Your task to perform on an android device: Go to battery settings Image 0: 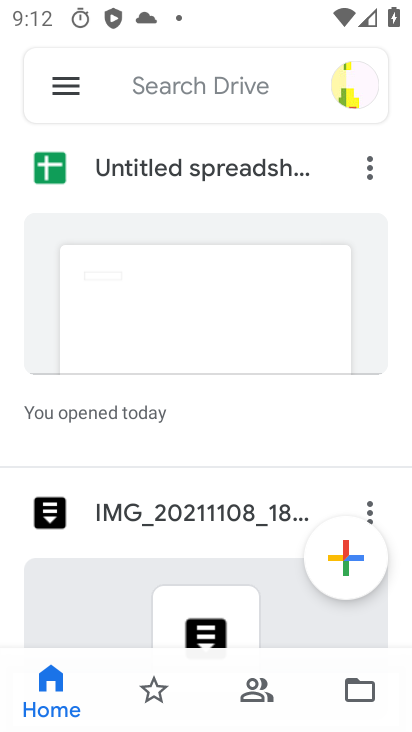
Step 0: press home button
Your task to perform on an android device: Go to battery settings Image 1: 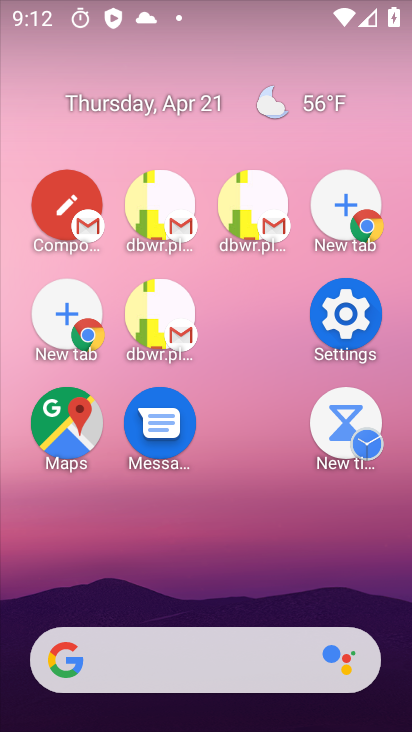
Step 1: drag from (296, 601) to (135, 69)
Your task to perform on an android device: Go to battery settings Image 2: 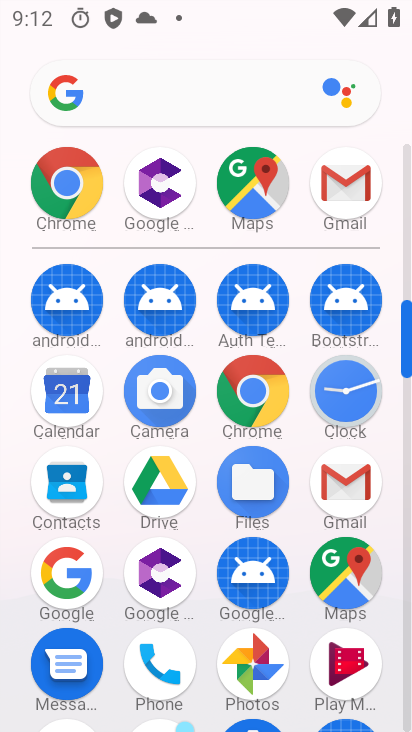
Step 2: drag from (202, 615) to (166, 151)
Your task to perform on an android device: Go to battery settings Image 3: 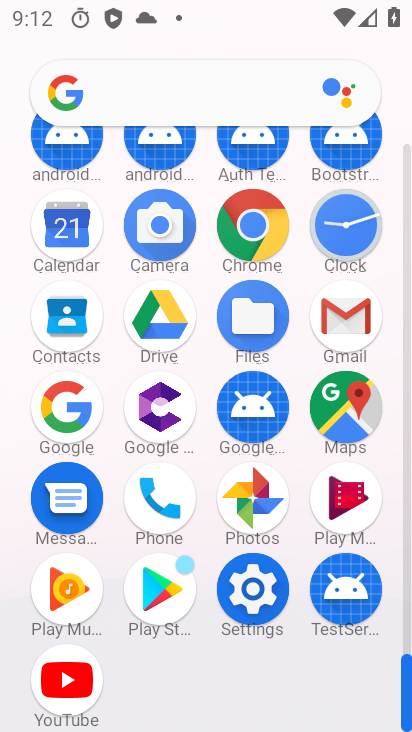
Step 3: click (256, 596)
Your task to perform on an android device: Go to battery settings Image 4: 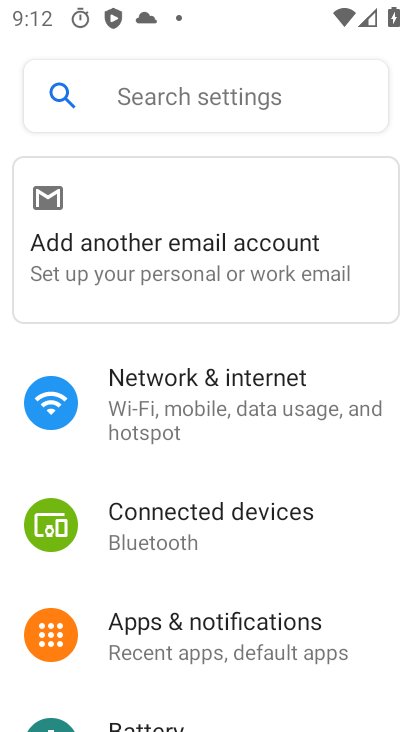
Step 4: drag from (222, 554) to (183, 229)
Your task to perform on an android device: Go to battery settings Image 5: 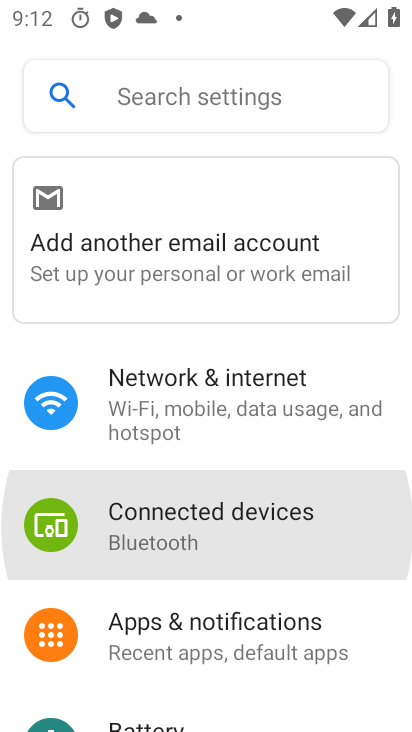
Step 5: drag from (217, 482) to (214, 160)
Your task to perform on an android device: Go to battery settings Image 6: 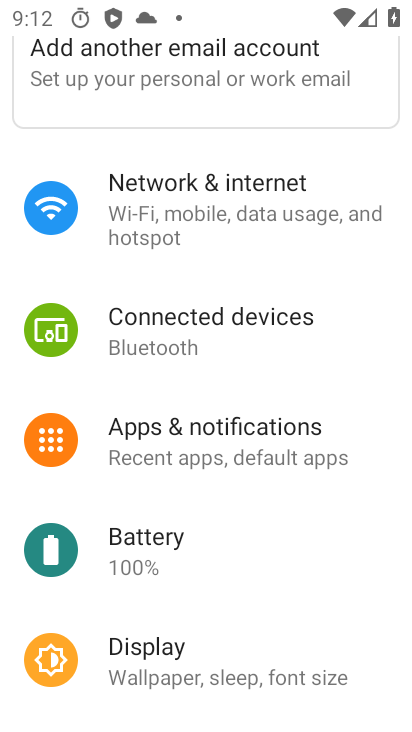
Step 6: drag from (208, 614) to (199, 251)
Your task to perform on an android device: Go to battery settings Image 7: 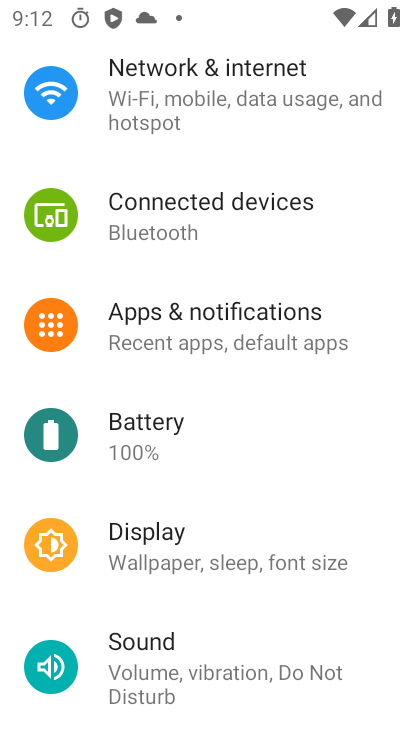
Step 7: drag from (236, 559) to (236, 258)
Your task to perform on an android device: Go to battery settings Image 8: 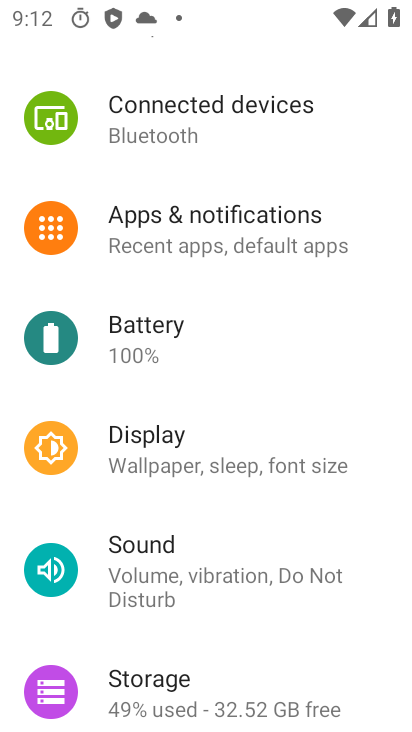
Step 8: click (153, 356)
Your task to perform on an android device: Go to battery settings Image 9: 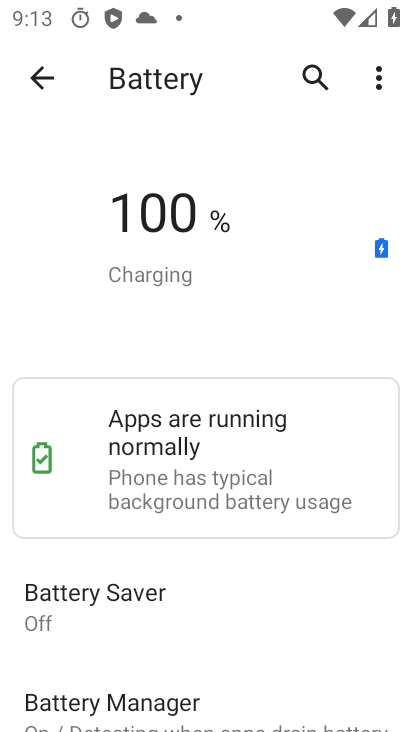
Step 9: task complete